Your task to perform on an android device: Go to display settings Image 0: 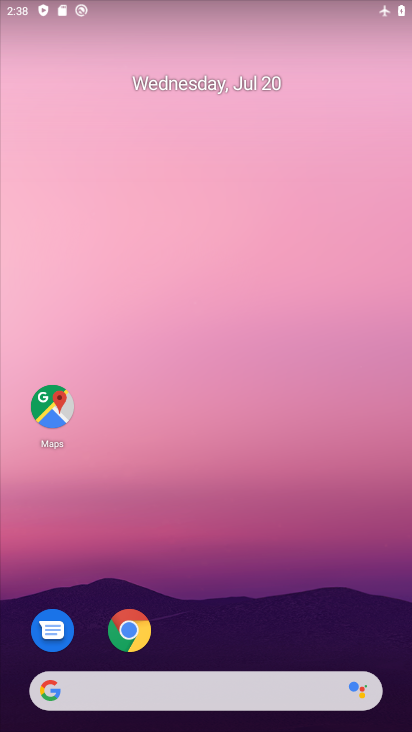
Step 0: click (313, 223)
Your task to perform on an android device: Go to display settings Image 1: 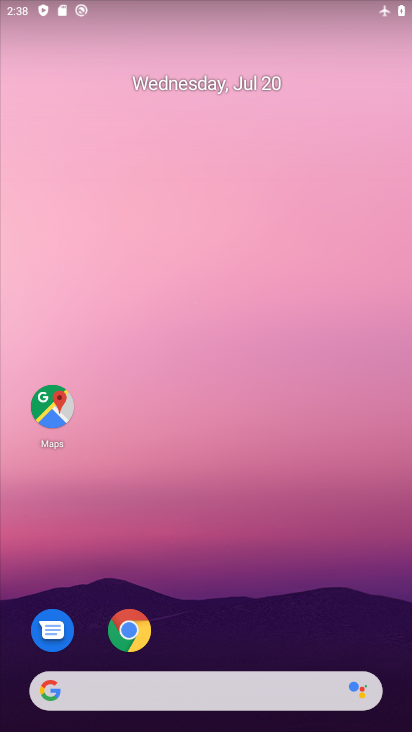
Step 1: drag from (267, 683) to (212, 174)
Your task to perform on an android device: Go to display settings Image 2: 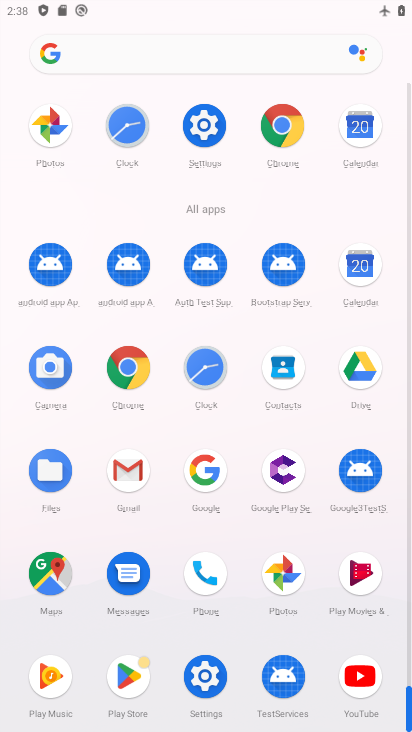
Step 2: click (201, 129)
Your task to perform on an android device: Go to display settings Image 3: 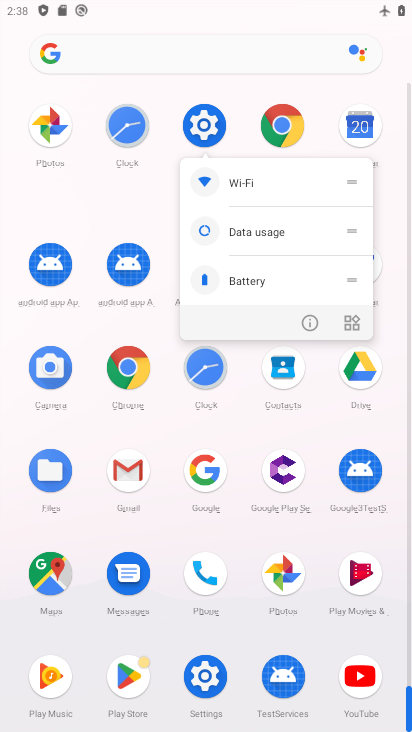
Step 3: click (202, 128)
Your task to perform on an android device: Go to display settings Image 4: 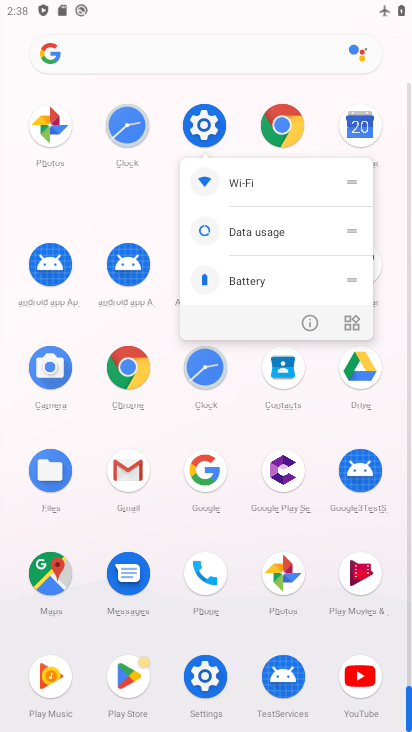
Step 4: click (208, 120)
Your task to perform on an android device: Go to display settings Image 5: 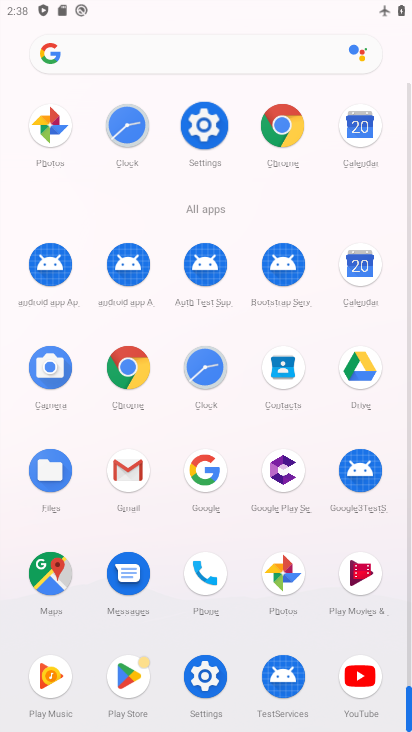
Step 5: click (209, 126)
Your task to perform on an android device: Go to display settings Image 6: 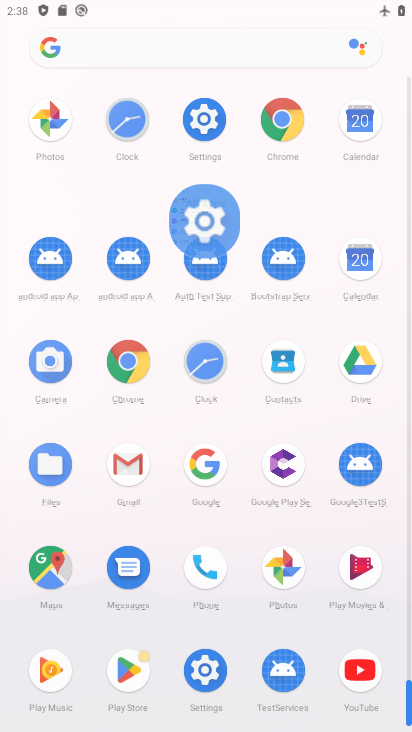
Step 6: click (210, 123)
Your task to perform on an android device: Go to display settings Image 7: 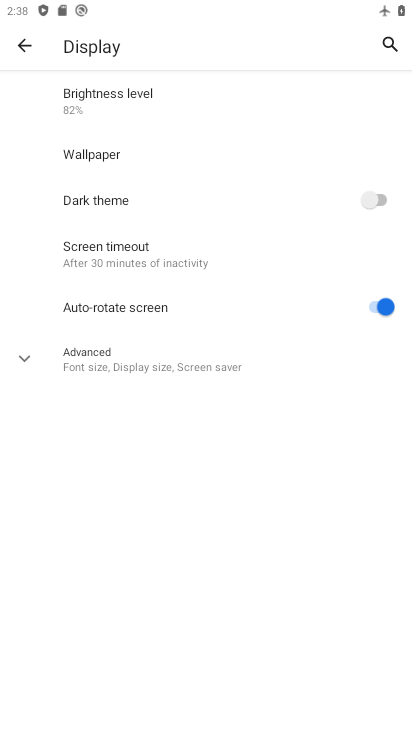
Step 7: task complete